Your task to perform on an android device: find photos in the google photos app Image 0: 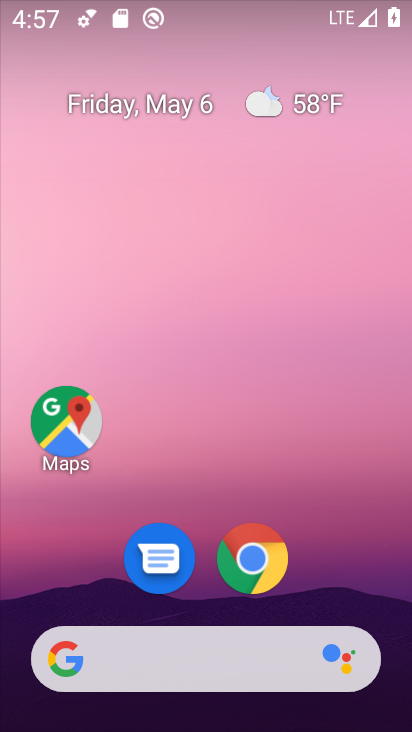
Step 0: drag from (355, 632) to (301, 3)
Your task to perform on an android device: find photos in the google photos app Image 1: 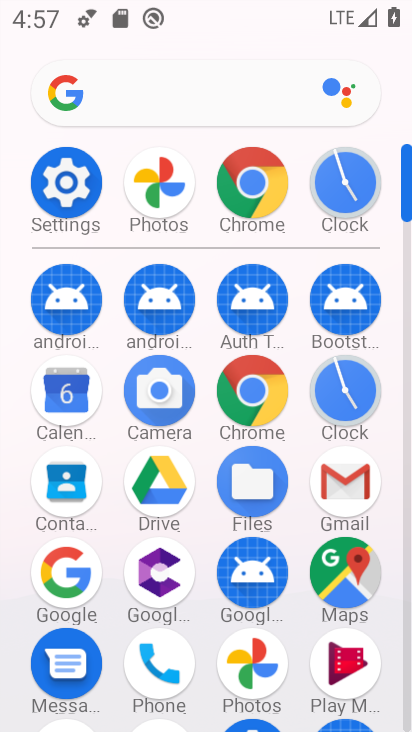
Step 1: click (256, 662)
Your task to perform on an android device: find photos in the google photos app Image 2: 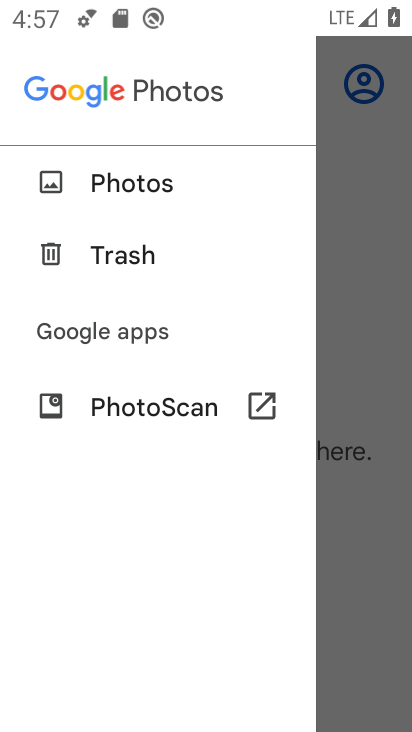
Step 2: click (359, 328)
Your task to perform on an android device: find photos in the google photos app Image 3: 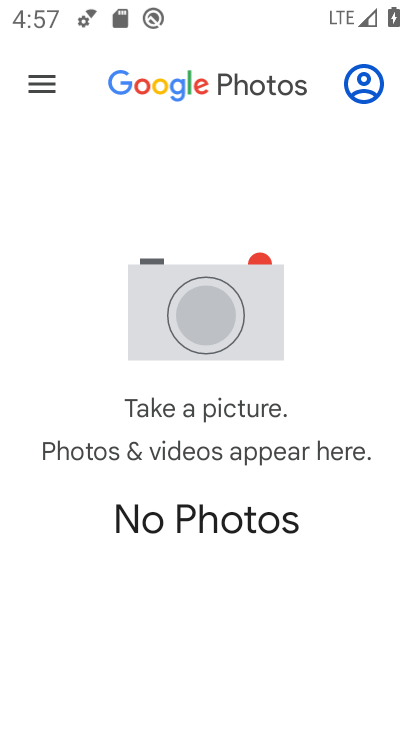
Step 3: task complete